Your task to perform on an android device: install app "DoorDash - Food Delivery" Image 0: 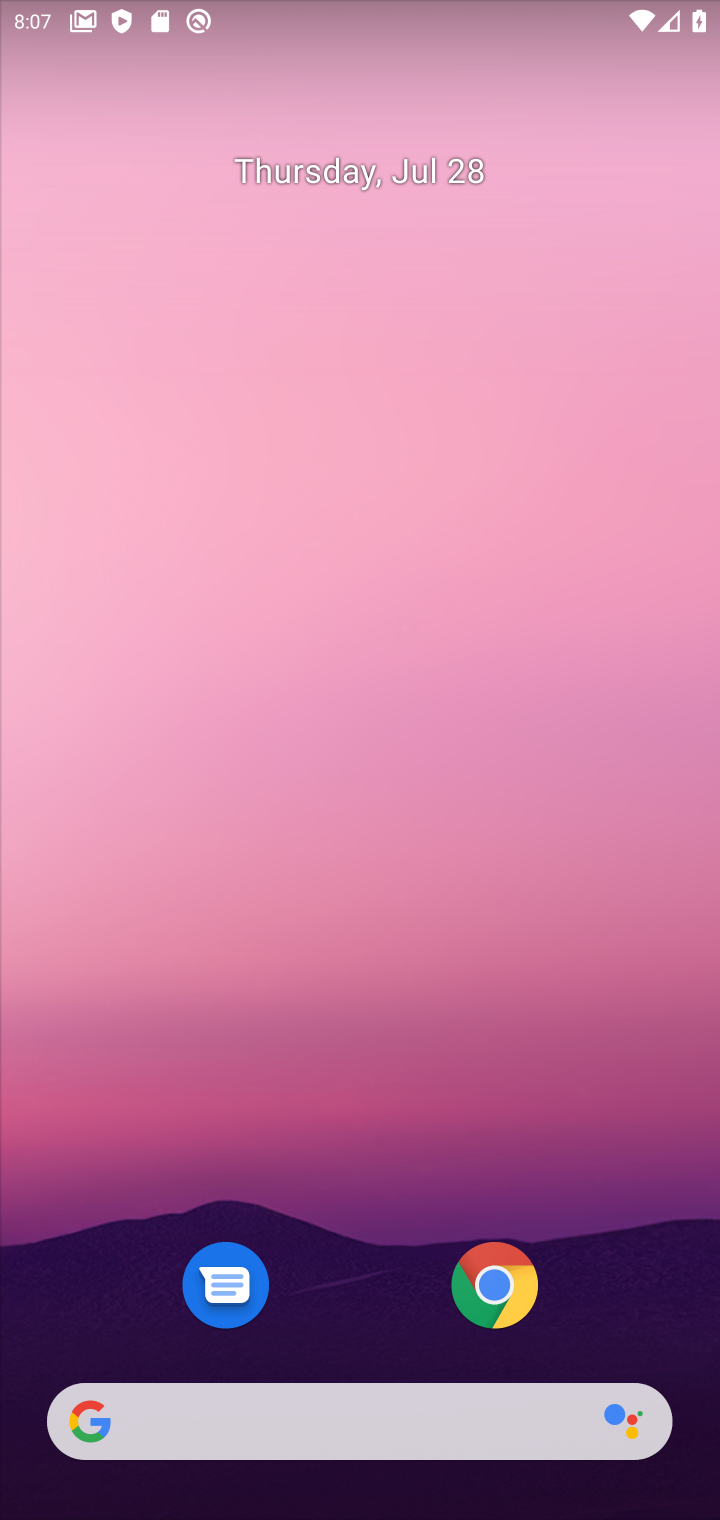
Step 0: drag from (422, 1416) to (419, 330)
Your task to perform on an android device: install app "DoorDash - Food Delivery" Image 1: 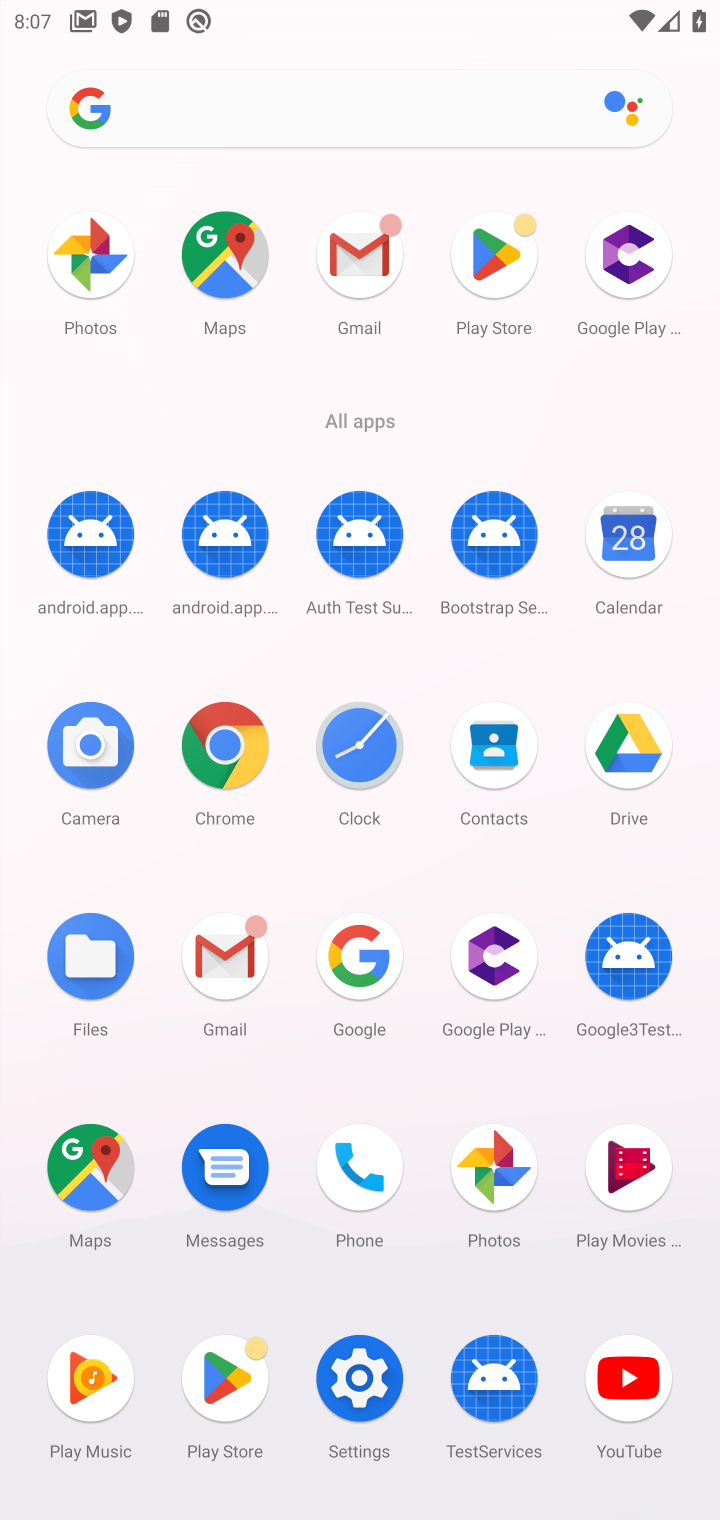
Step 1: click (488, 302)
Your task to perform on an android device: install app "DoorDash - Food Delivery" Image 2: 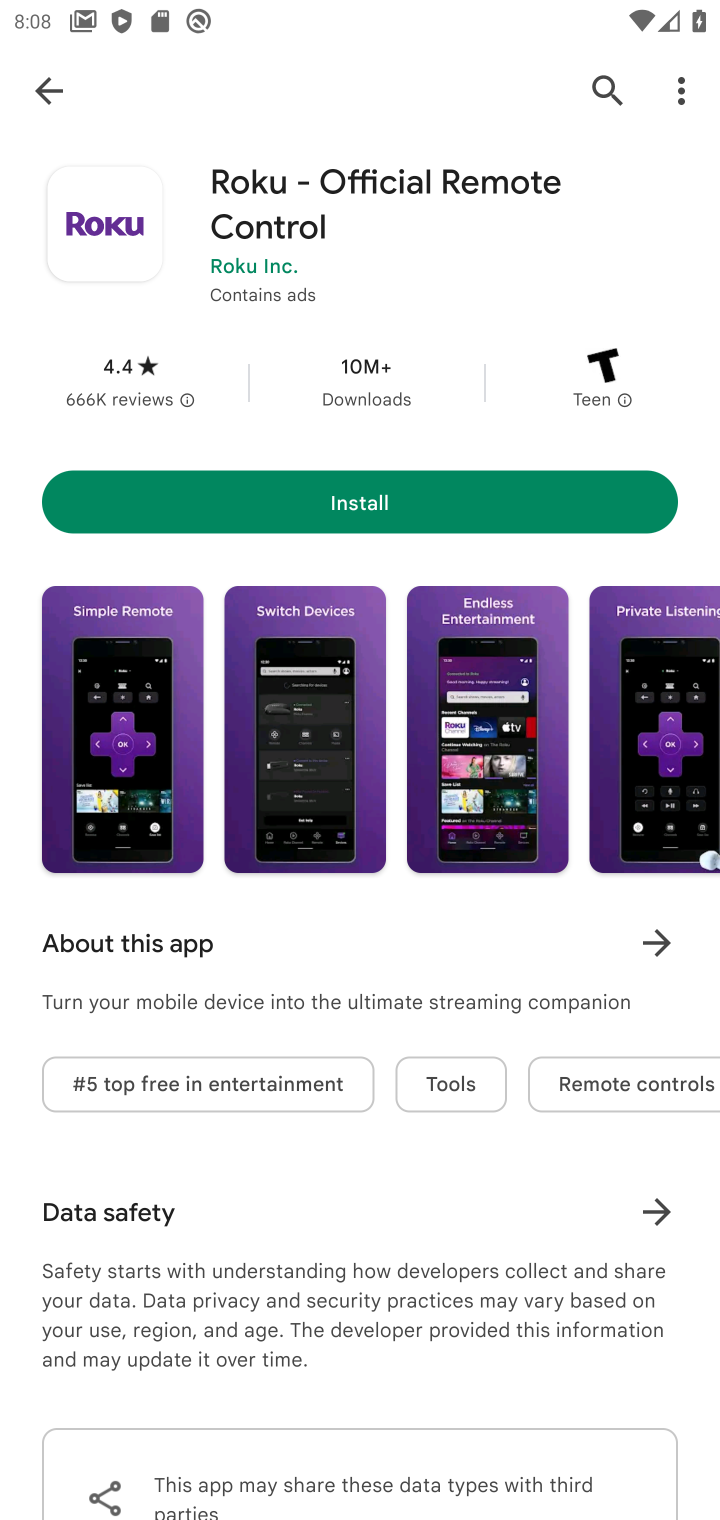
Step 2: click (602, 99)
Your task to perform on an android device: install app "DoorDash - Food Delivery" Image 3: 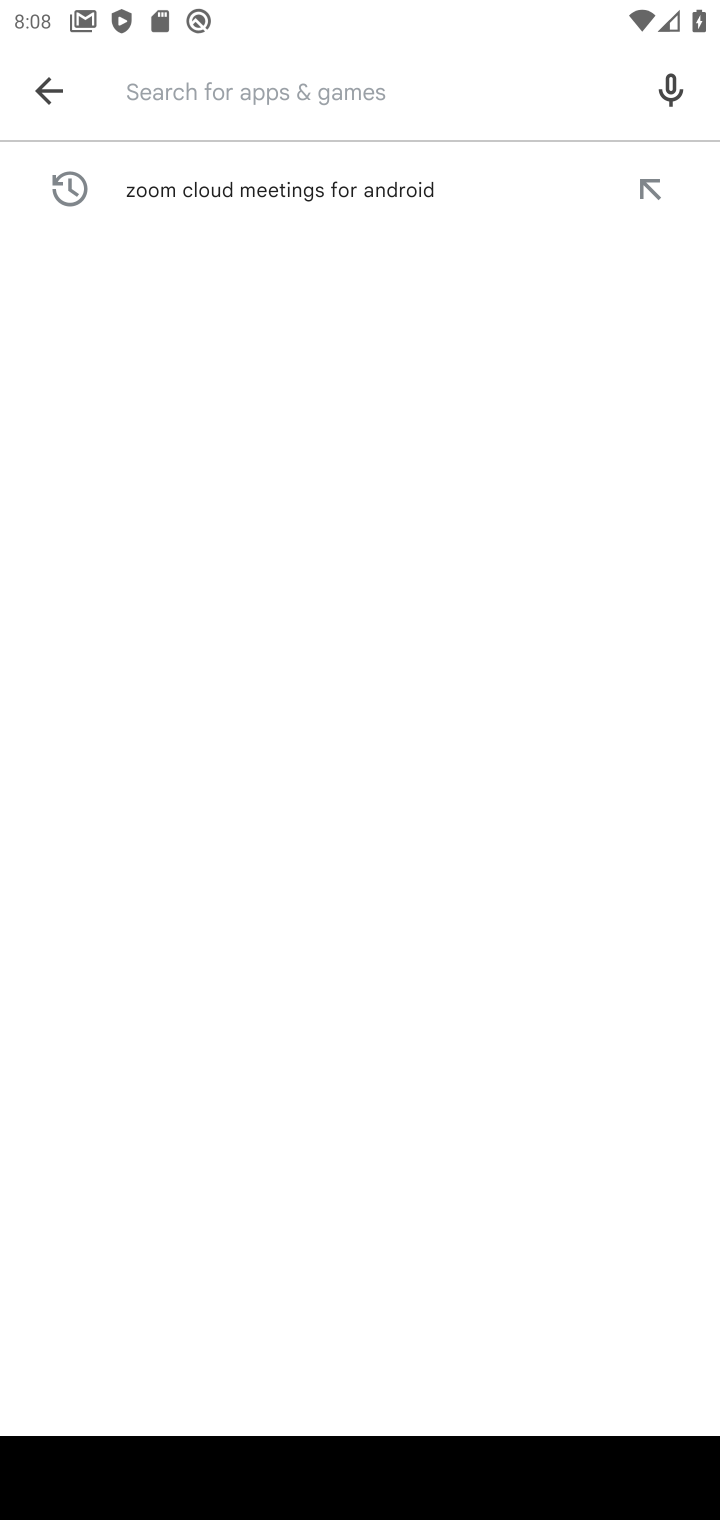
Step 3: type "DoorDash - Food Delivery"
Your task to perform on an android device: install app "DoorDash - Food Delivery" Image 4: 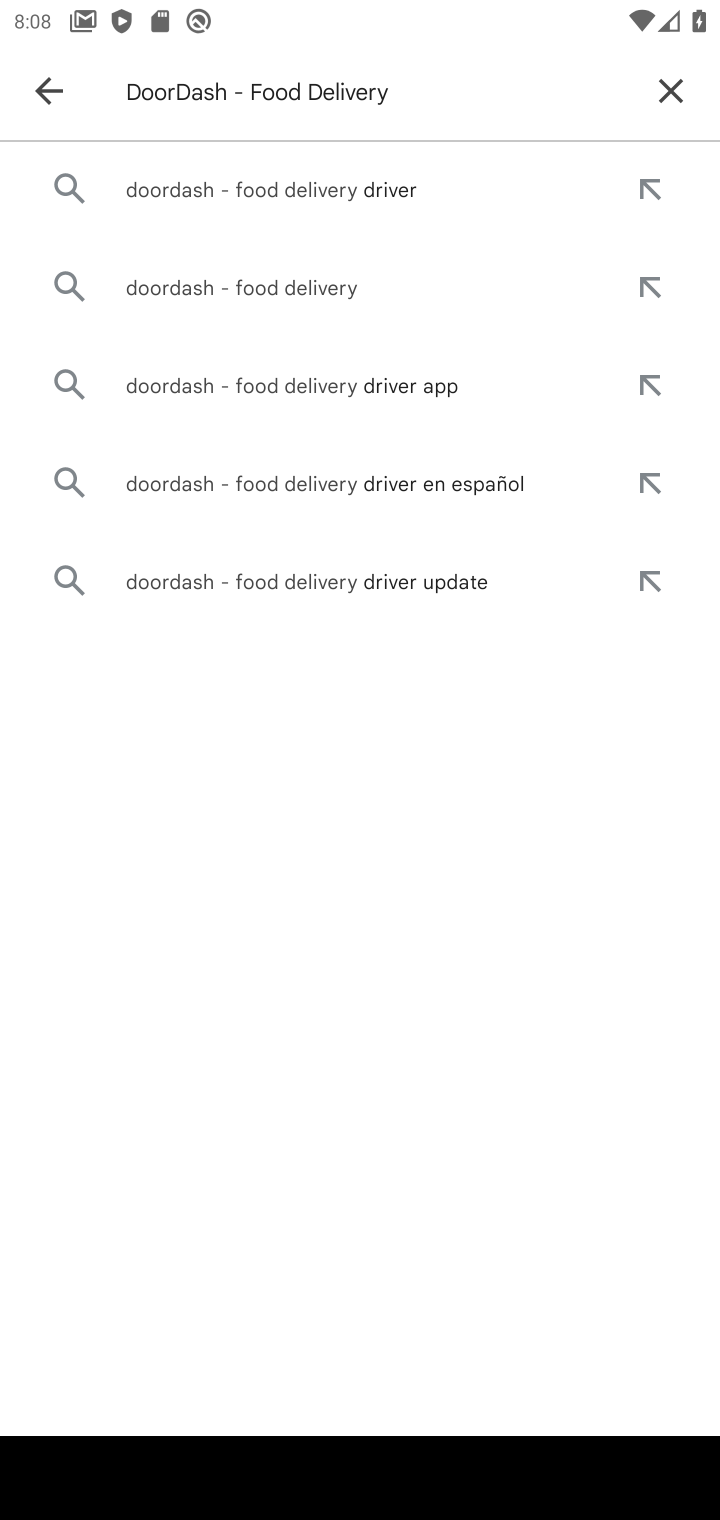
Step 4: click (353, 198)
Your task to perform on an android device: install app "DoorDash - Food Delivery" Image 5: 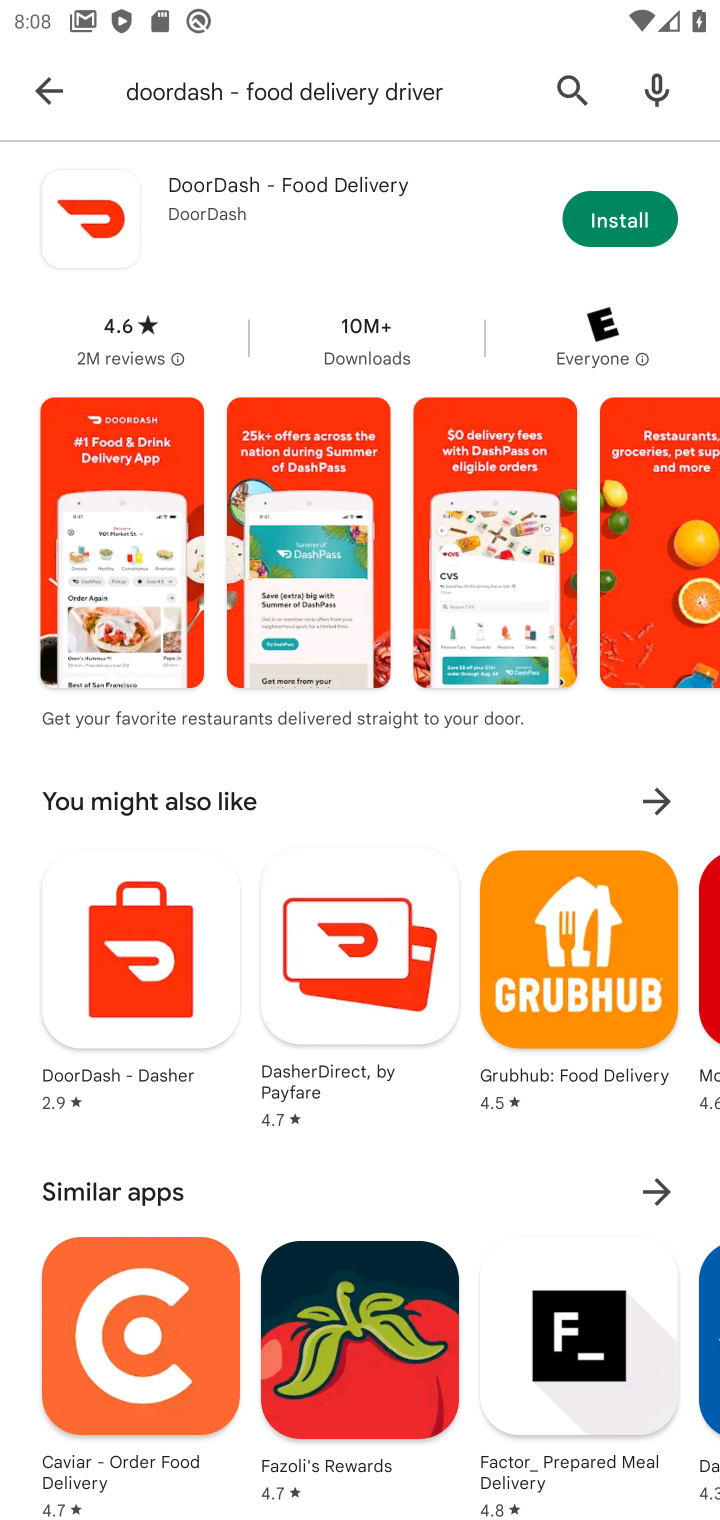
Step 5: click (630, 217)
Your task to perform on an android device: install app "DoorDash - Food Delivery" Image 6: 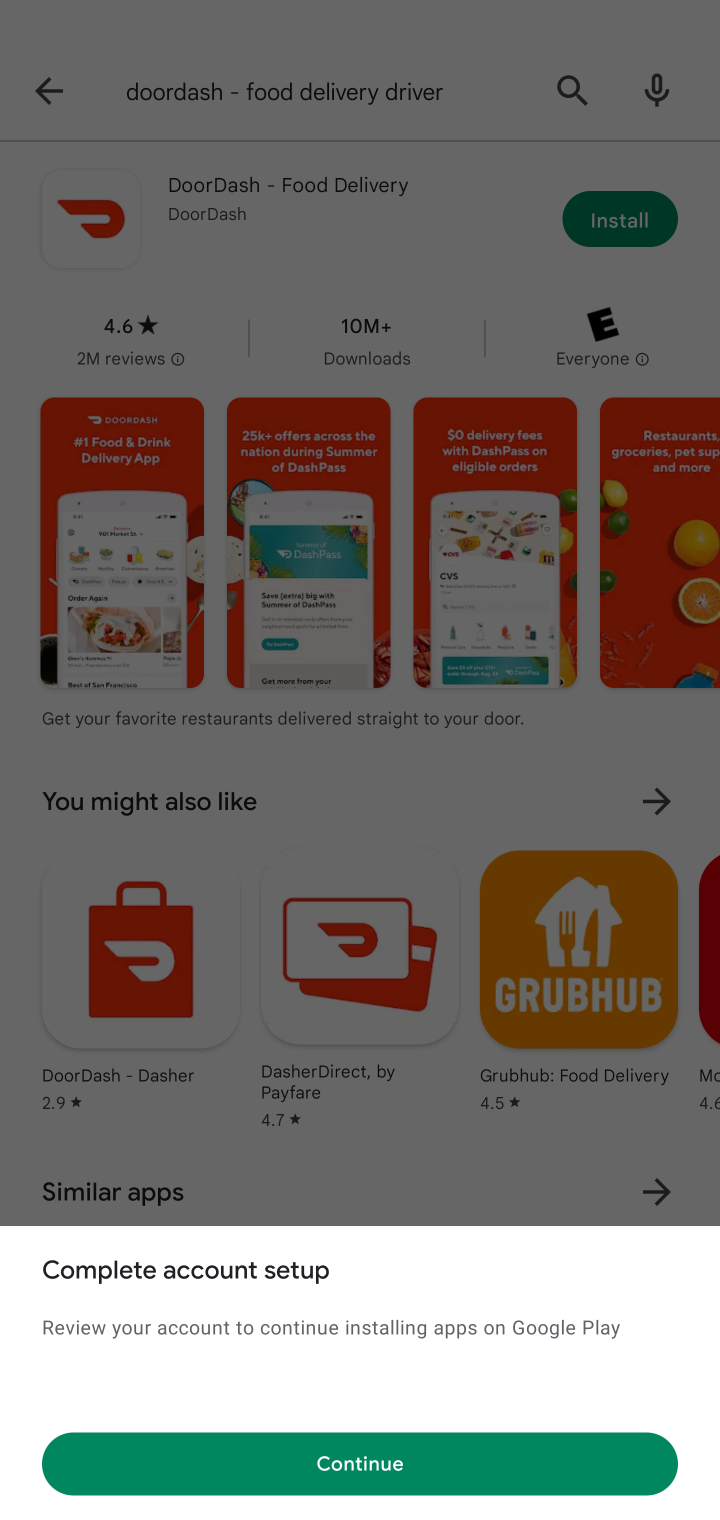
Step 6: click (349, 1459)
Your task to perform on an android device: install app "DoorDash - Food Delivery" Image 7: 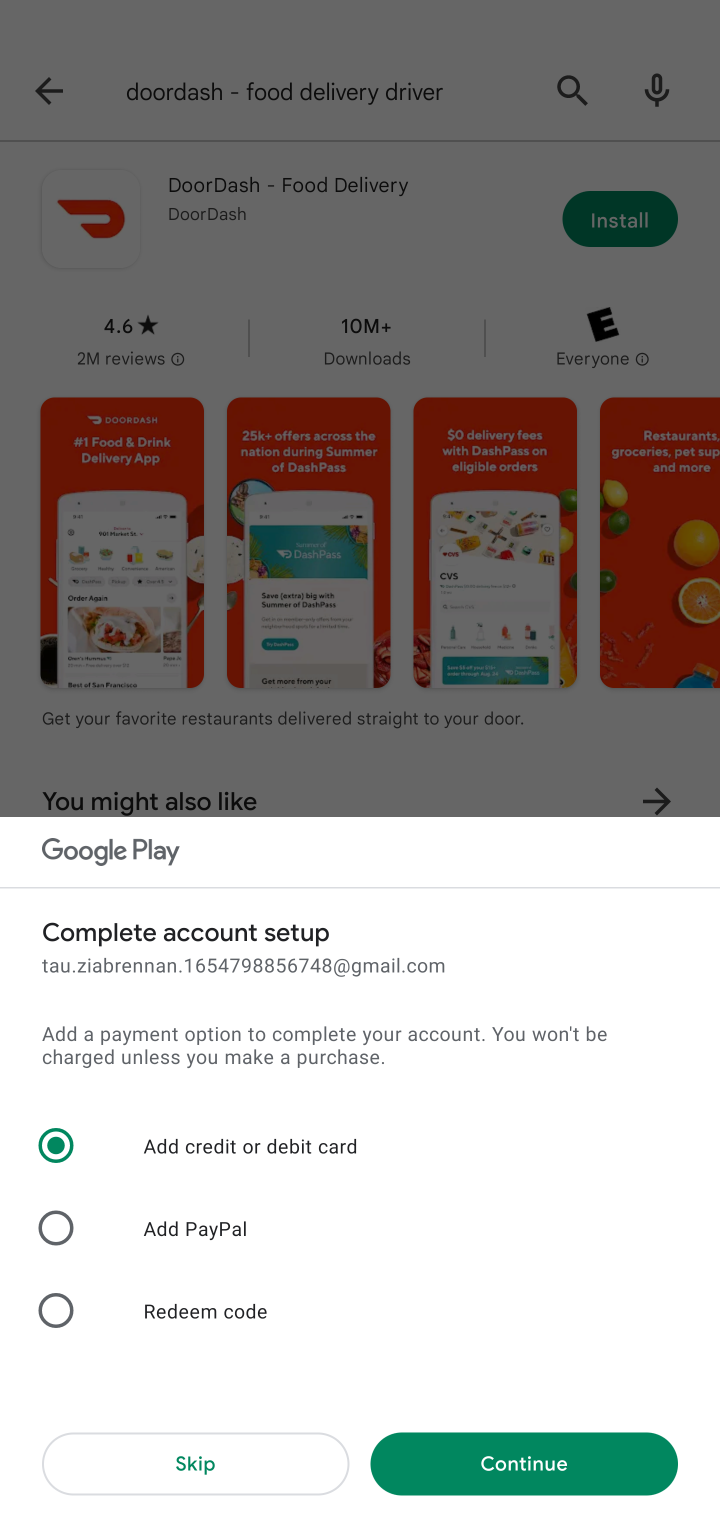
Step 7: click (217, 1468)
Your task to perform on an android device: install app "DoorDash - Food Delivery" Image 8: 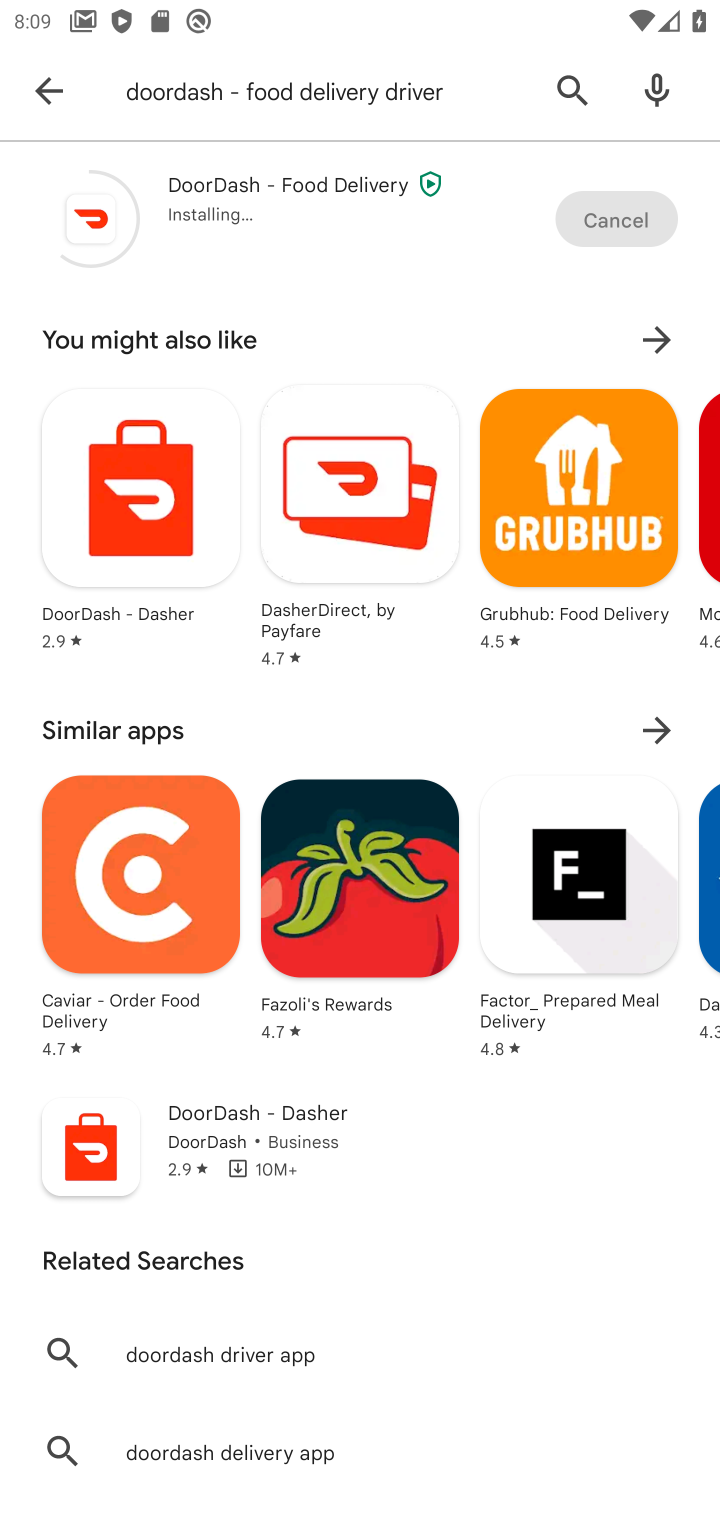
Step 8: task complete